Your task to perform on an android device: Check the weather Image 0: 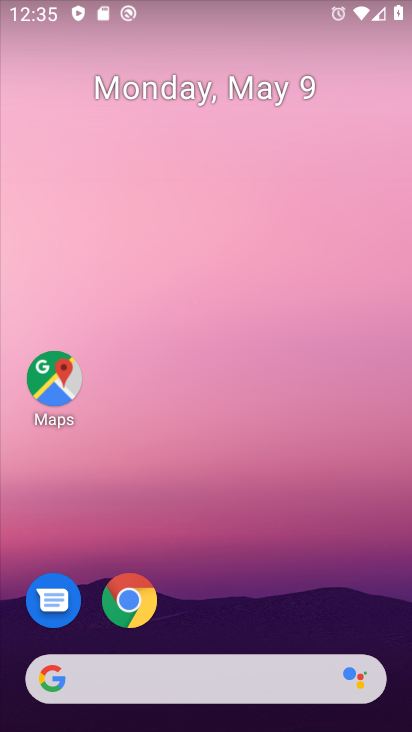
Step 0: drag from (208, 564) to (224, 420)
Your task to perform on an android device: Check the weather Image 1: 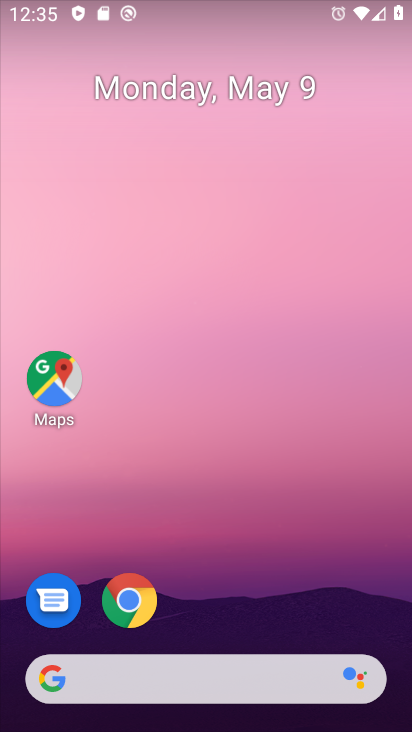
Step 1: drag from (155, 508) to (162, 8)
Your task to perform on an android device: Check the weather Image 2: 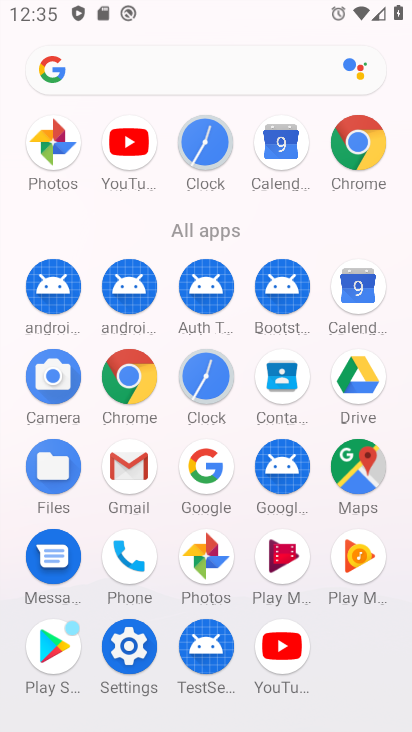
Step 2: drag from (235, 617) to (252, 541)
Your task to perform on an android device: Check the weather Image 3: 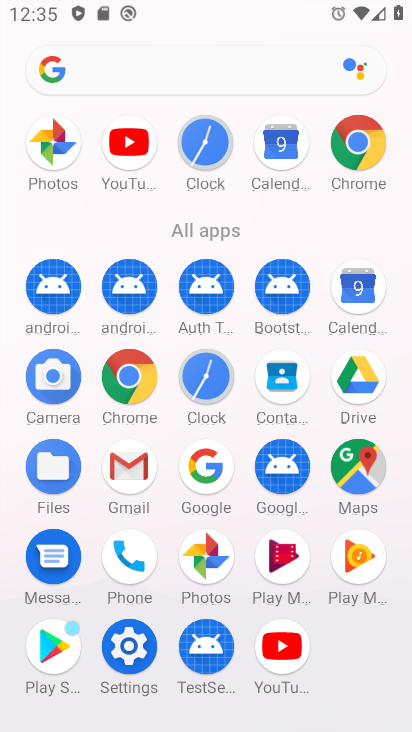
Step 3: drag from (213, 611) to (224, 452)
Your task to perform on an android device: Check the weather Image 4: 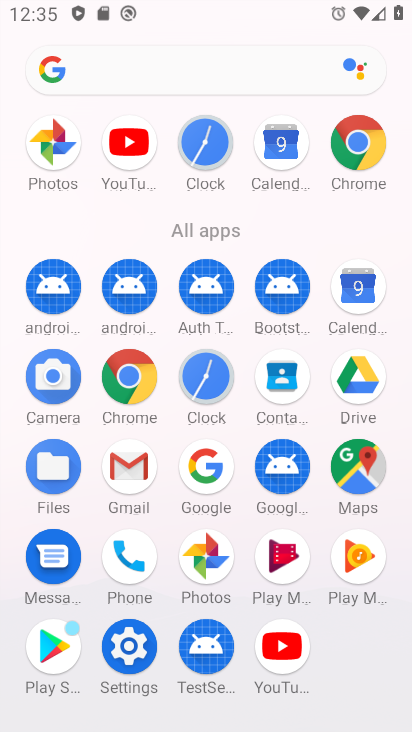
Step 4: drag from (338, 675) to (352, 386)
Your task to perform on an android device: Check the weather Image 5: 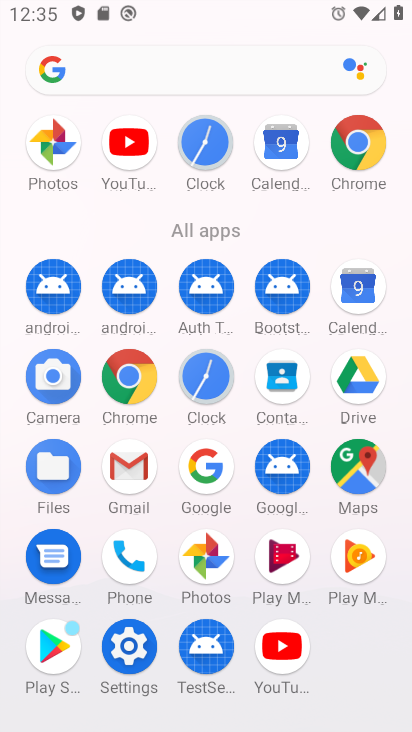
Step 5: drag from (166, 604) to (205, 393)
Your task to perform on an android device: Check the weather Image 6: 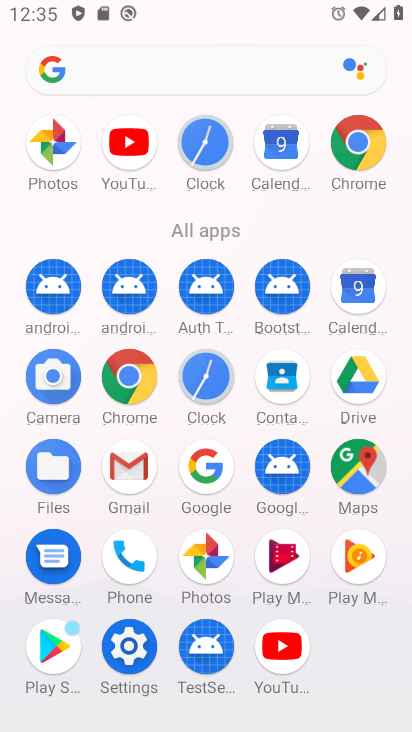
Step 6: press home button
Your task to perform on an android device: Check the weather Image 7: 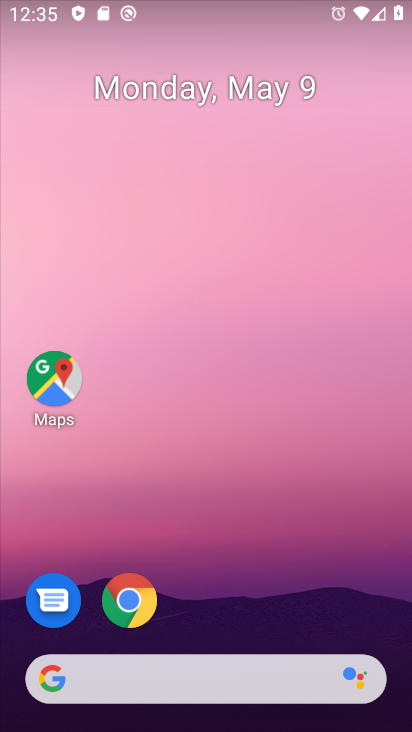
Step 7: click (248, 725)
Your task to perform on an android device: Check the weather Image 8: 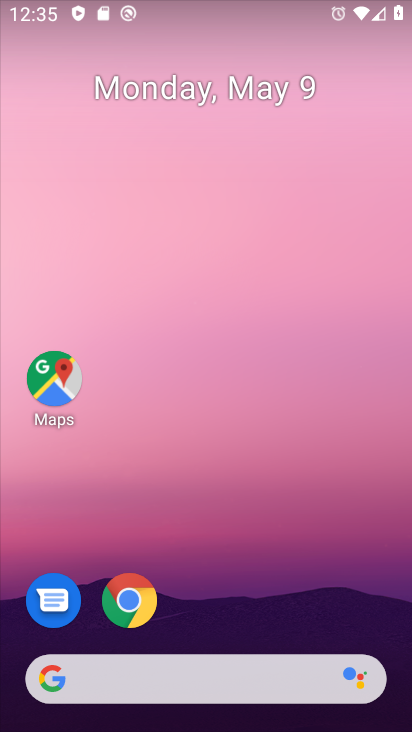
Step 8: drag from (228, 34) to (88, 691)
Your task to perform on an android device: Check the weather Image 9: 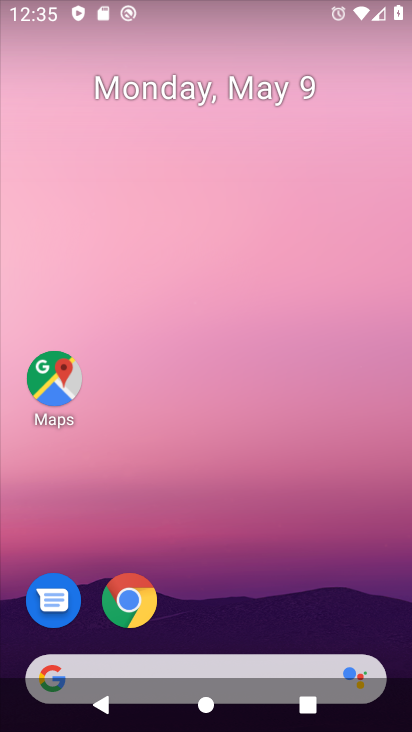
Step 9: drag from (232, 530) to (347, 111)
Your task to perform on an android device: Check the weather Image 10: 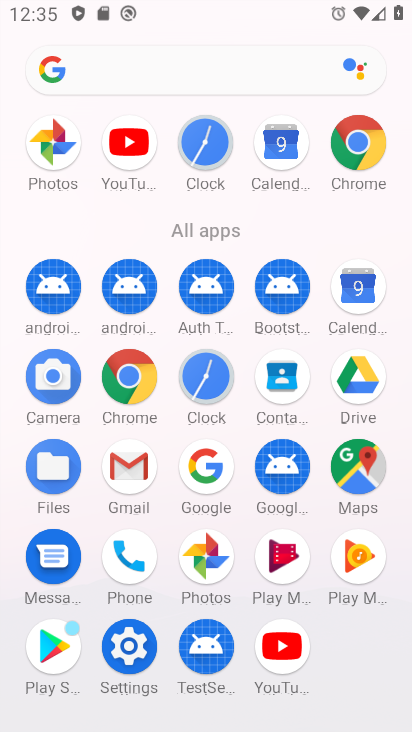
Step 10: click (351, 460)
Your task to perform on an android device: Check the weather Image 11: 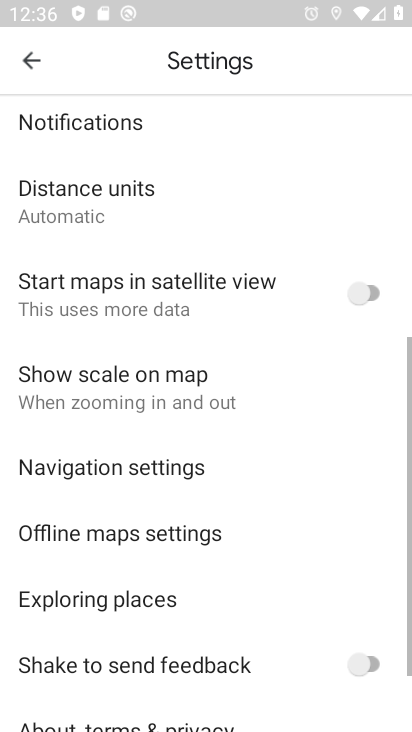
Step 11: click (26, 71)
Your task to perform on an android device: Check the weather Image 12: 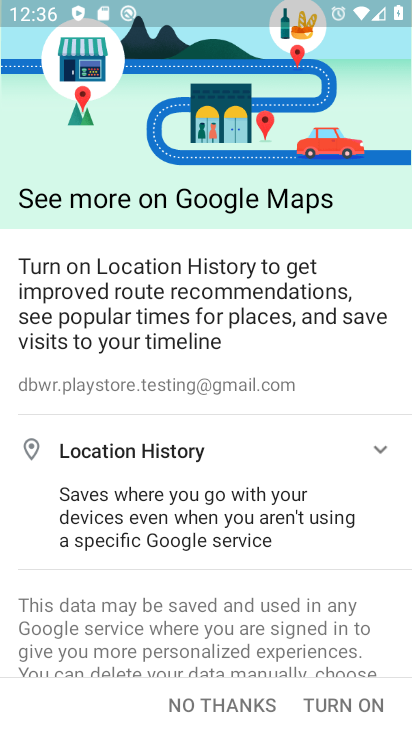
Step 12: press home button
Your task to perform on an android device: Check the weather Image 13: 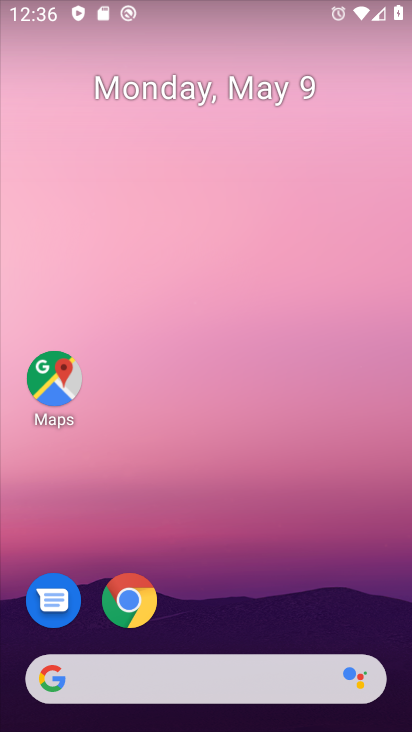
Step 13: drag from (203, 492) to (226, 206)
Your task to perform on an android device: Check the weather Image 14: 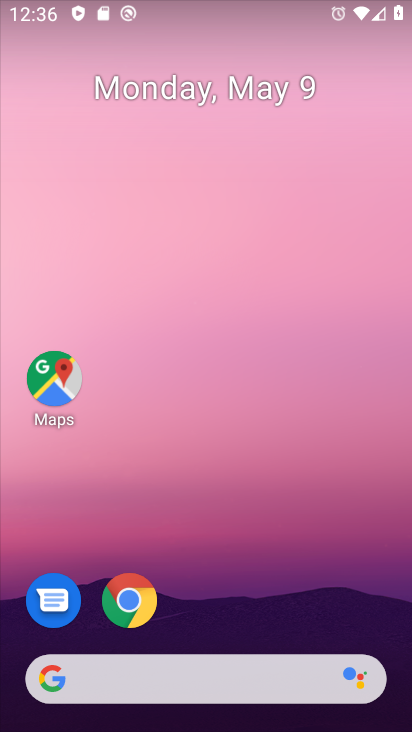
Step 14: click (35, 670)
Your task to perform on an android device: Check the weather Image 15: 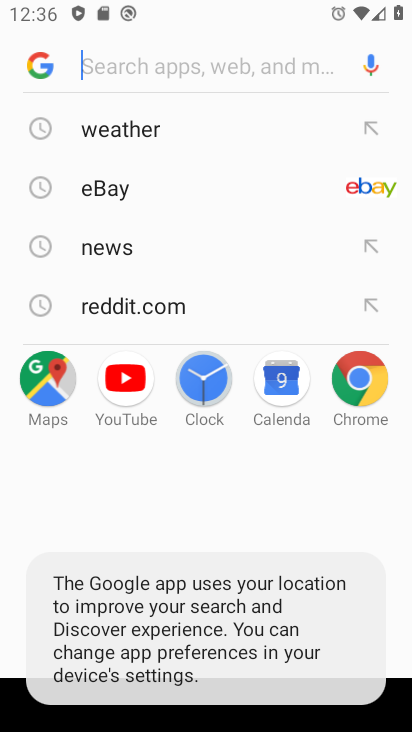
Step 15: click (120, 135)
Your task to perform on an android device: Check the weather Image 16: 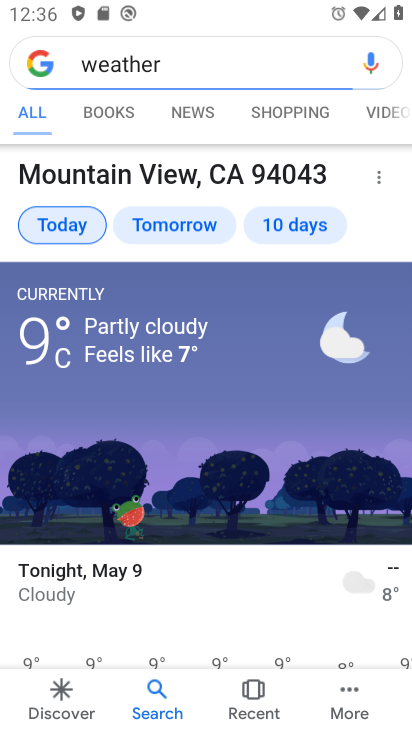
Step 16: task complete